Your task to perform on an android device: turn on translation in the chrome app Image 0: 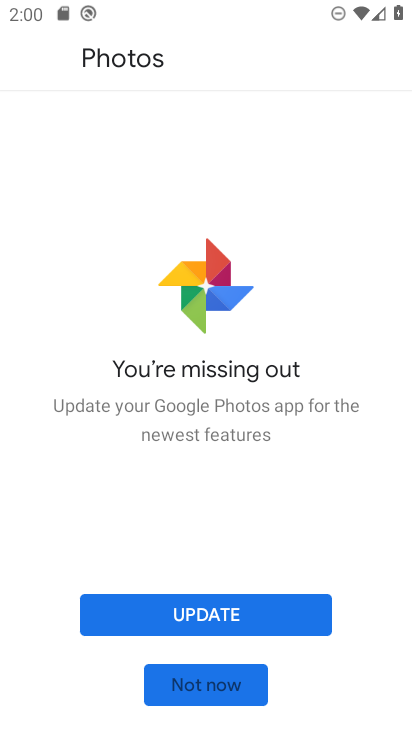
Step 0: press home button
Your task to perform on an android device: turn on translation in the chrome app Image 1: 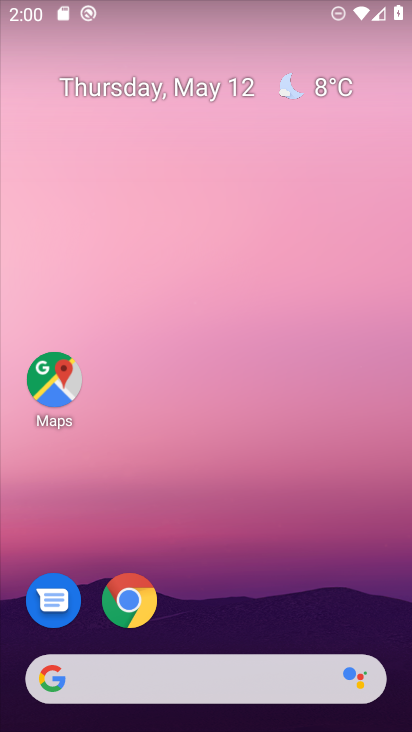
Step 1: click (123, 602)
Your task to perform on an android device: turn on translation in the chrome app Image 2: 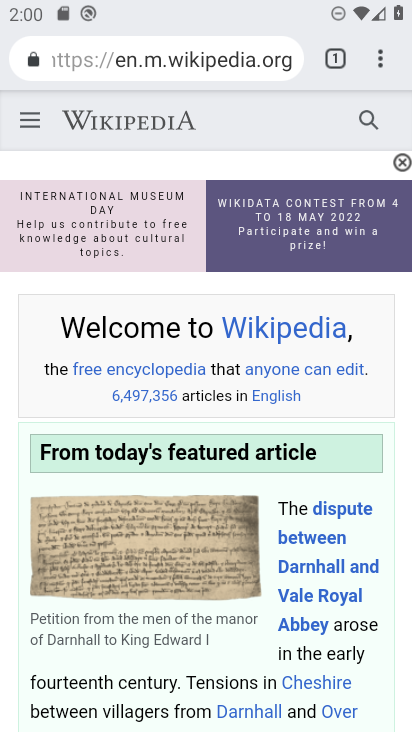
Step 2: click (379, 64)
Your task to perform on an android device: turn on translation in the chrome app Image 3: 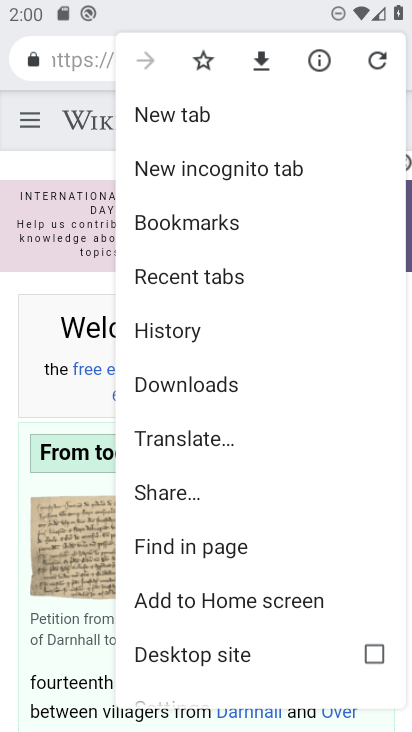
Step 3: drag from (205, 637) to (227, 212)
Your task to perform on an android device: turn on translation in the chrome app Image 4: 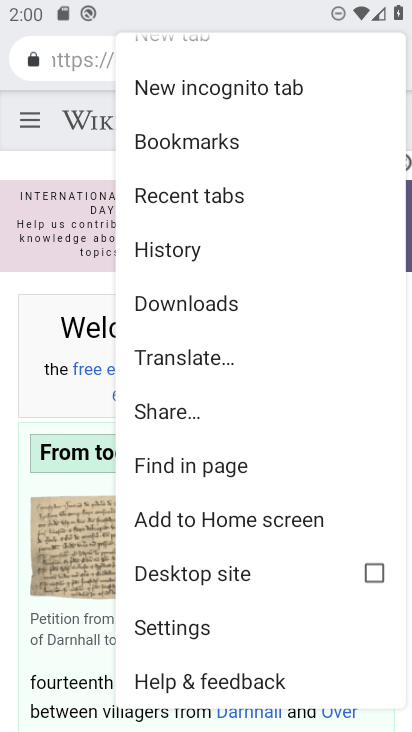
Step 4: click (202, 623)
Your task to perform on an android device: turn on translation in the chrome app Image 5: 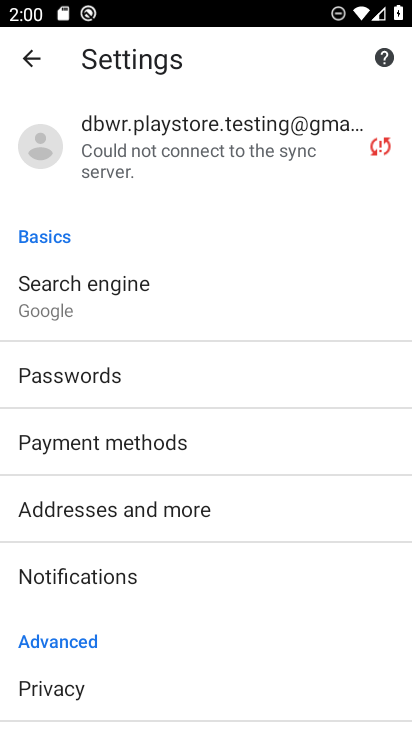
Step 5: drag from (102, 637) to (102, 386)
Your task to perform on an android device: turn on translation in the chrome app Image 6: 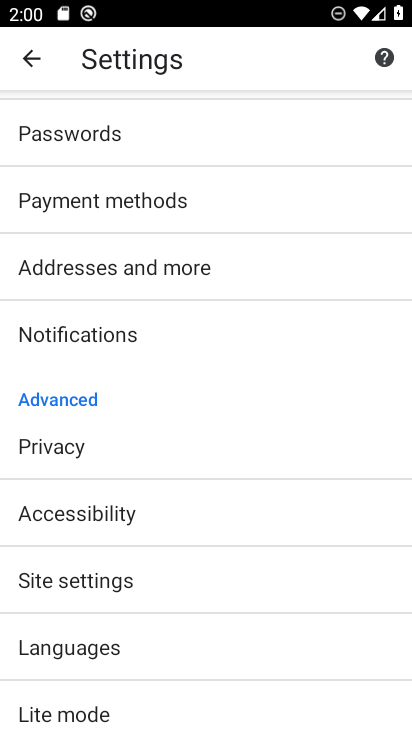
Step 6: click (89, 643)
Your task to perform on an android device: turn on translation in the chrome app Image 7: 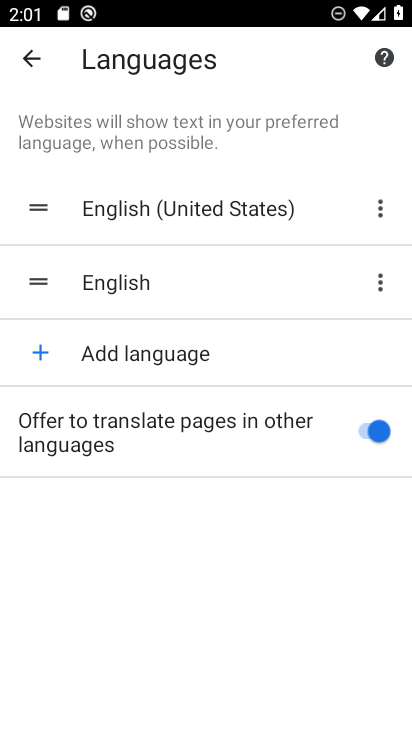
Step 7: task complete